Your task to perform on an android device: remove spam from my inbox in the gmail app Image 0: 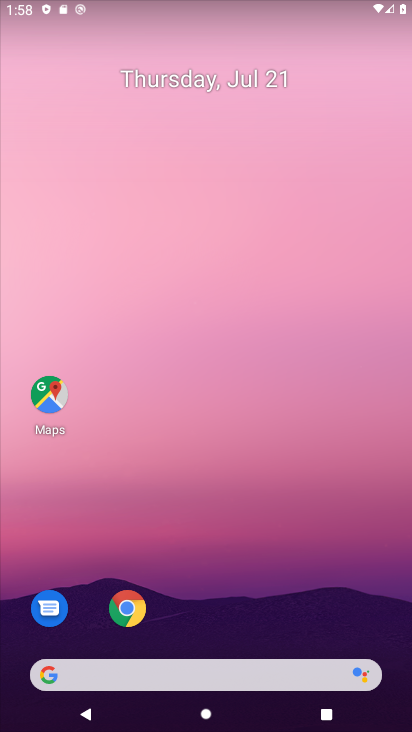
Step 0: drag from (225, 615) to (223, 221)
Your task to perform on an android device: remove spam from my inbox in the gmail app Image 1: 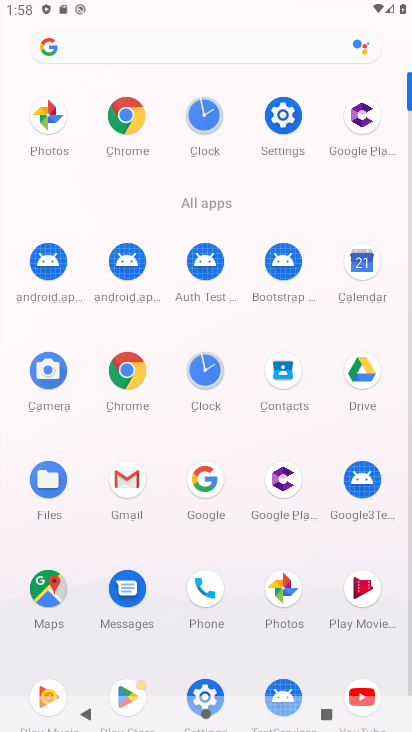
Step 1: click (132, 465)
Your task to perform on an android device: remove spam from my inbox in the gmail app Image 2: 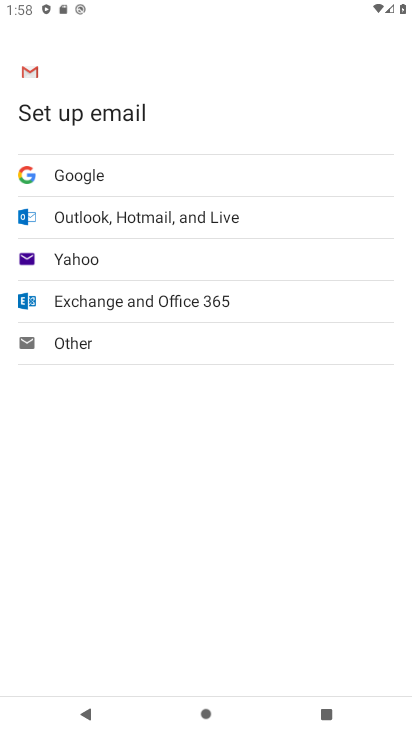
Step 2: press back button
Your task to perform on an android device: remove spam from my inbox in the gmail app Image 3: 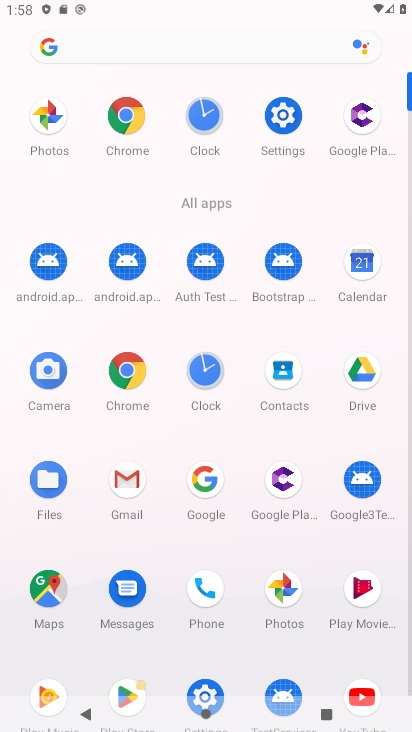
Step 3: click (127, 486)
Your task to perform on an android device: remove spam from my inbox in the gmail app Image 4: 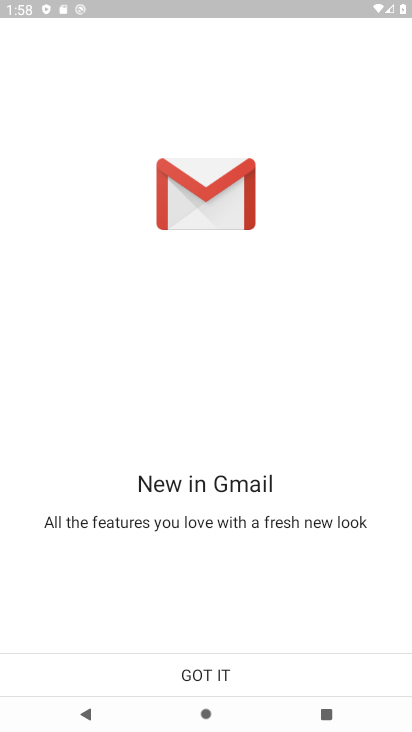
Step 4: click (258, 680)
Your task to perform on an android device: remove spam from my inbox in the gmail app Image 5: 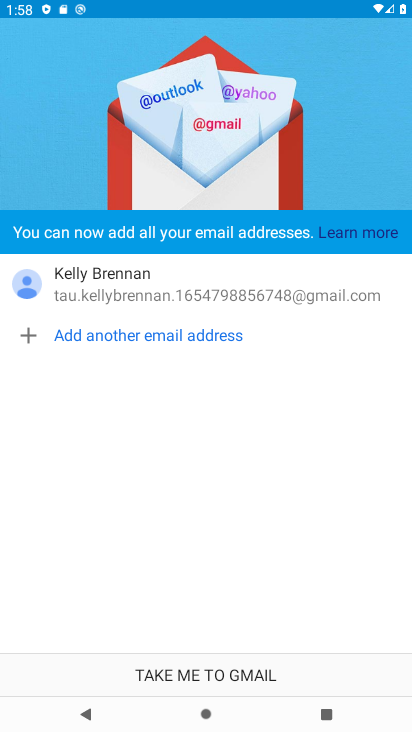
Step 5: click (259, 680)
Your task to perform on an android device: remove spam from my inbox in the gmail app Image 6: 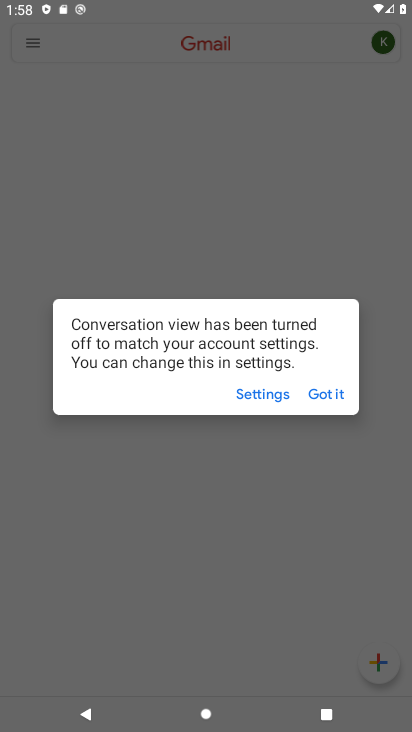
Step 6: click (320, 394)
Your task to perform on an android device: remove spam from my inbox in the gmail app Image 7: 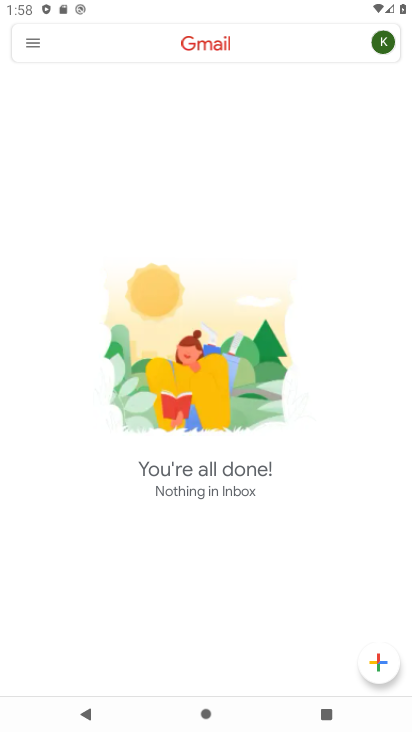
Step 7: click (37, 37)
Your task to perform on an android device: remove spam from my inbox in the gmail app Image 8: 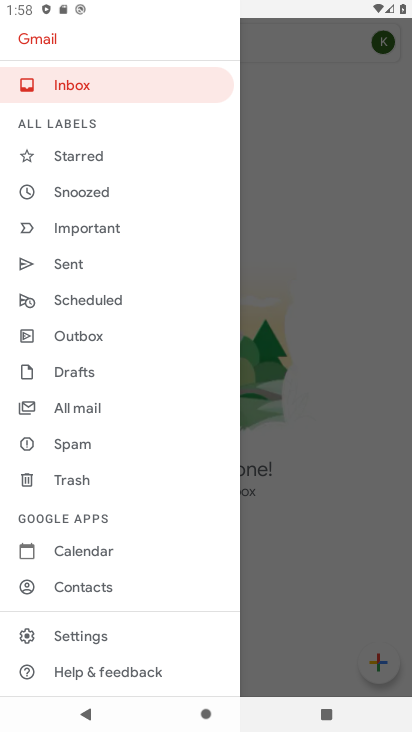
Step 8: click (93, 449)
Your task to perform on an android device: remove spam from my inbox in the gmail app Image 9: 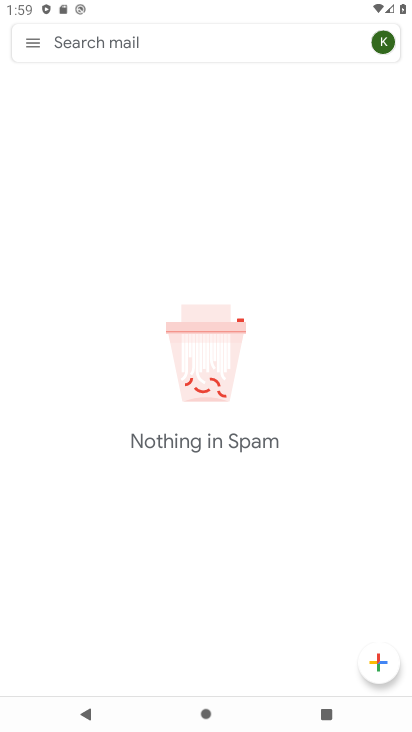
Step 9: task complete